Your task to perform on an android device: turn off notifications in google photos Image 0: 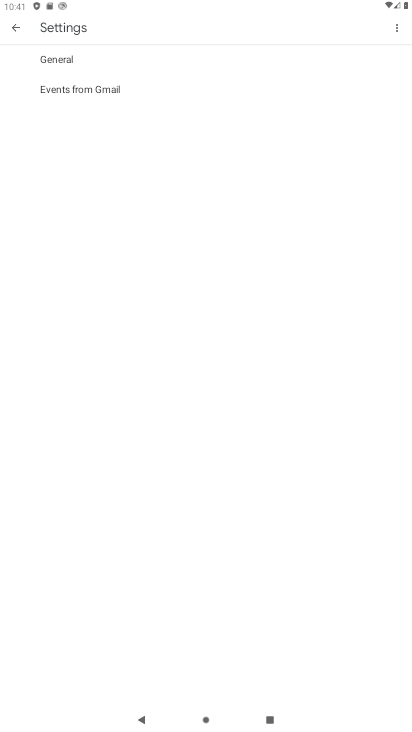
Step 0: press home button
Your task to perform on an android device: turn off notifications in google photos Image 1: 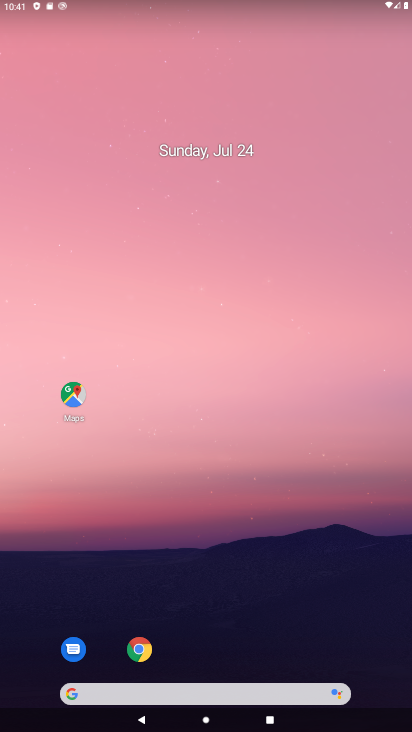
Step 1: drag from (197, 698) to (52, 9)
Your task to perform on an android device: turn off notifications in google photos Image 2: 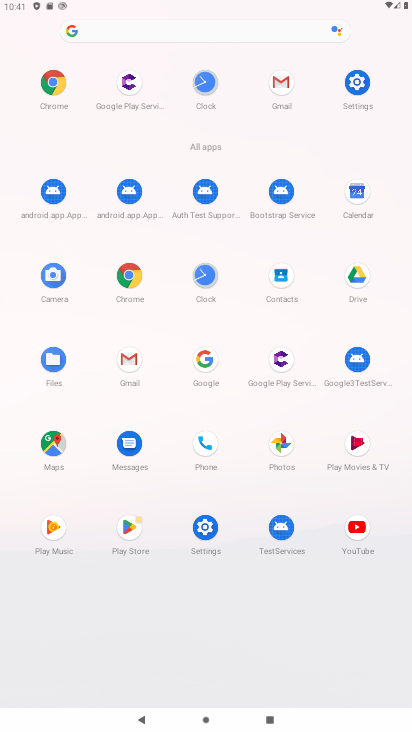
Step 2: click (286, 439)
Your task to perform on an android device: turn off notifications in google photos Image 3: 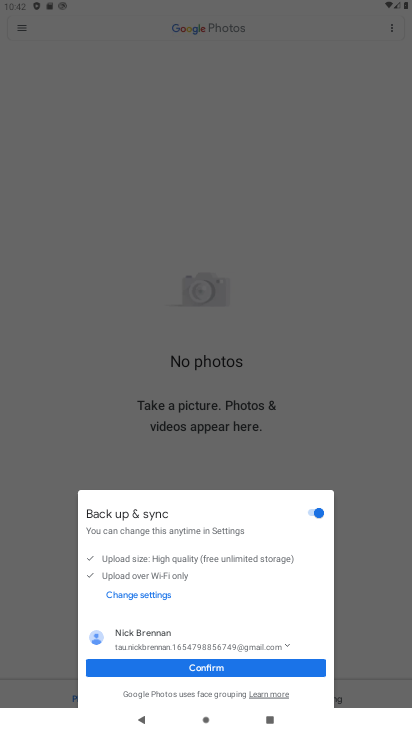
Step 3: click (223, 671)
Your task to perform on an android device: turn off notifications in google photos Image 4: 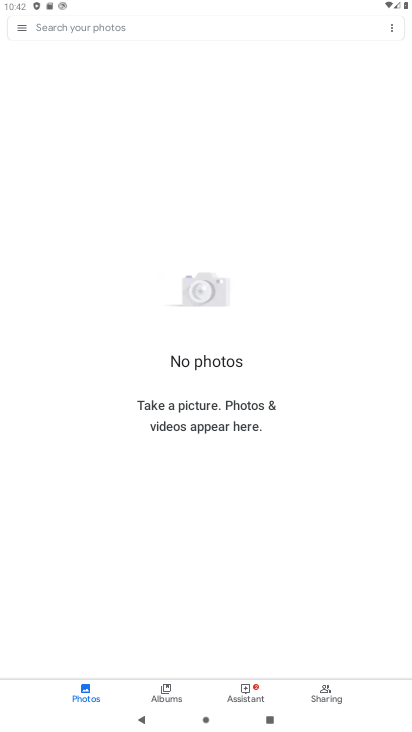
Step 4: click (21, 28)
Your task to perform on an android device: turn off notifications in google photos Image 5: 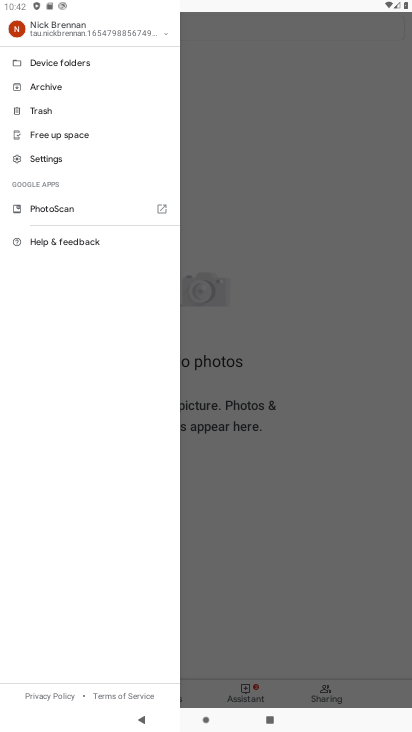
Step 5: click (48, 158)
Your task to perform on an android device: turn off notifications in google photos Image 6: 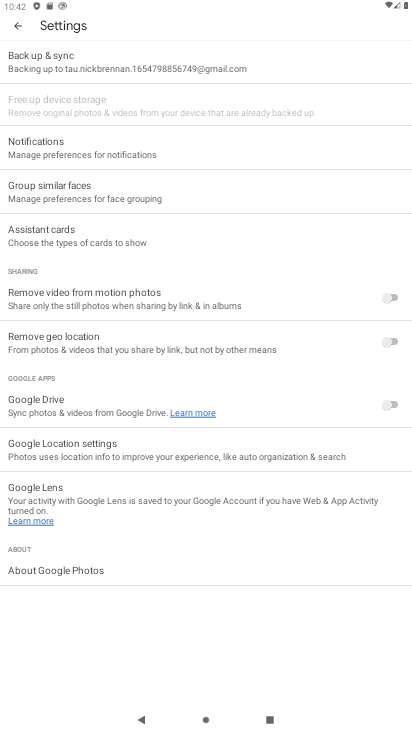
Step 6: click (75, 151)
Your task to perform on an android device: turn off notifications in google photos Image 7: 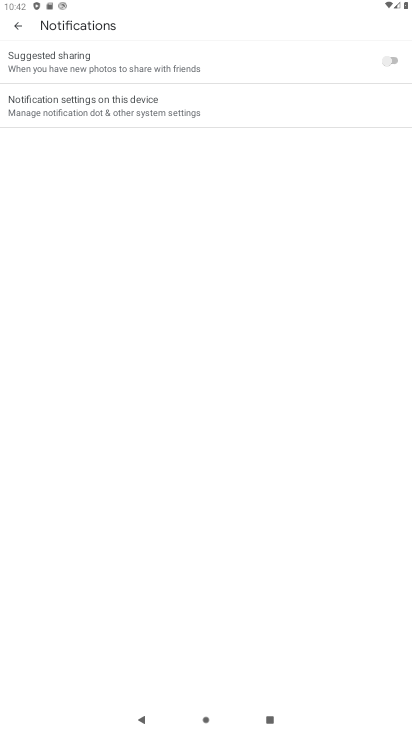
Step 7: click (260, 105)
Your task to perform on an android device: turn off notifications in google photos Image 8: 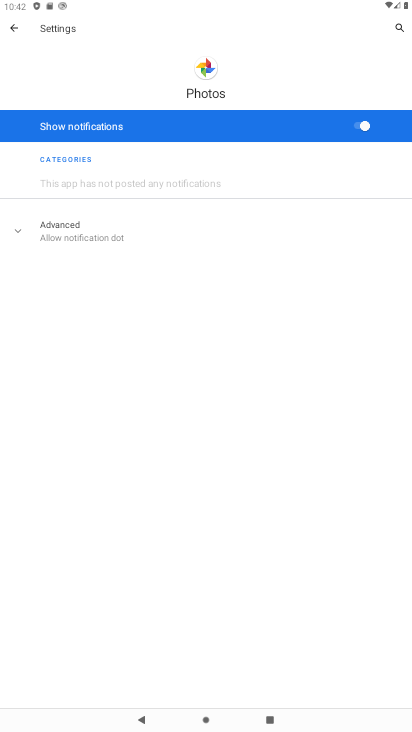
Step 8: click (363, 125)
Your task to perform on an android device: turn off notifications in google photos Image 9: 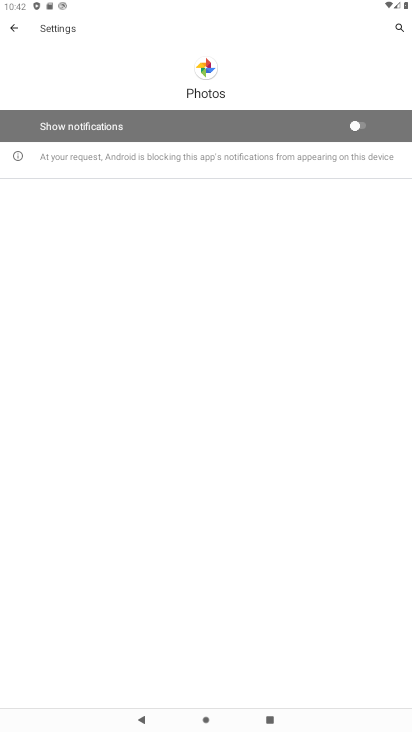
Step 9: task complete